Your task to perform on an android device: Search for seafood restaurants on Google Maps Image 0: 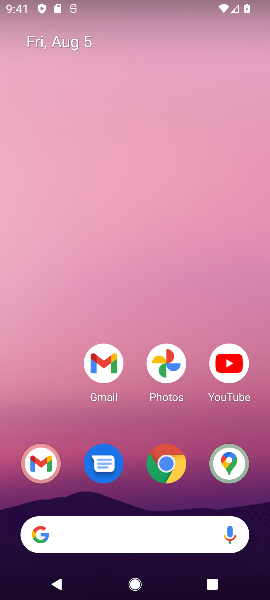
Step 0: drag from (175, 518) to (69, 10)
Your task to perform on an android device: Search for seafood restaurants on Google Maps Image 1: 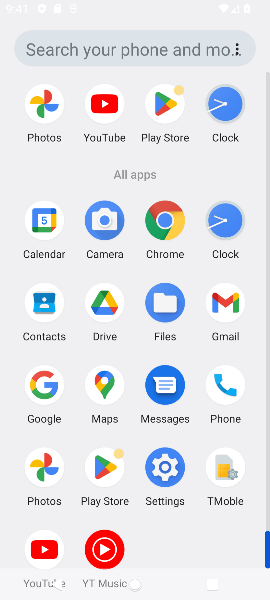
Step 1: drag from (138, 494) to (90, 69)
Your task to perform on an android device: Search for seafood restaurants on Google Maps Image 2: 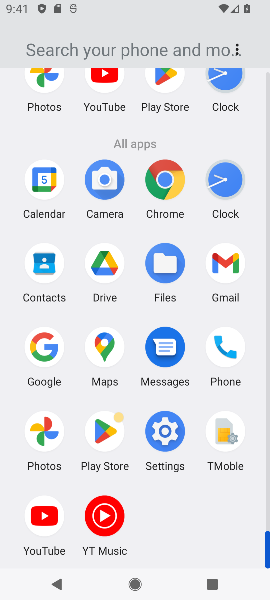
Step 2: drag from (120, 395) to (120, 355)
Your task to perform on an android device: Search for seafood restaurants on Google Maps Image 3: 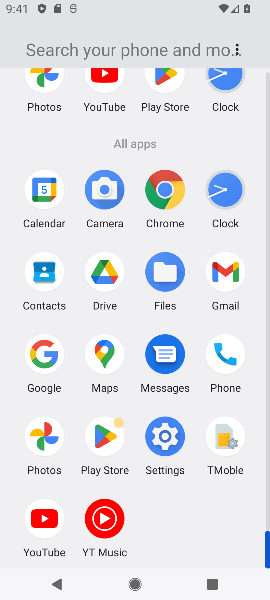
Step 3: click (102, 350)
Your task to perform on an android device: Search for seafood restaurants on Google Maps Image 4: 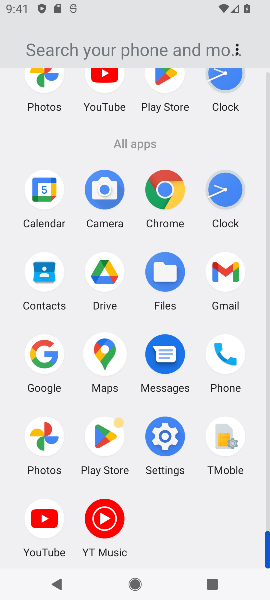
Step 4: click (102, 350)
Your task to perform on an android device: Search for seafood restaurants on Google Maps Image 5: 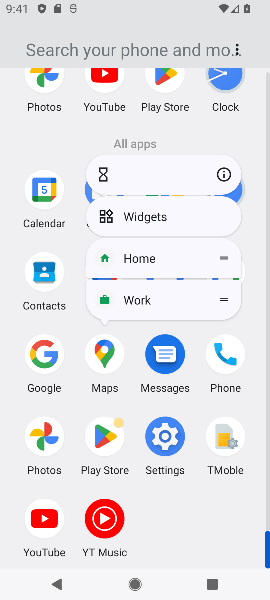
Step 5: click (102, 350)
Your task to perform on an android device: Search for seafood restaurants on Google Maps Image 6: 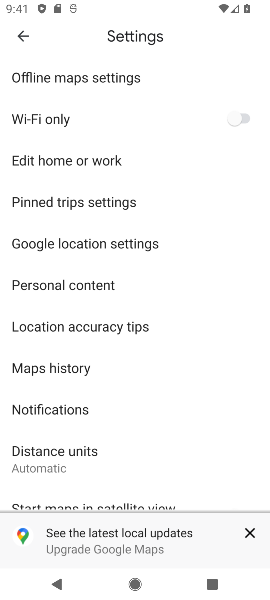
Step 6: click (102, 351)
Your task to perform on an android device: Search for seafood restaurants on Google Maps Image 7: 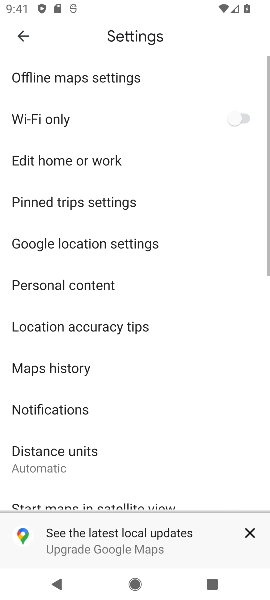
Step 7: click (23, 30)
Your task to perform on an android device: Search for seafood restaurants on Google Maps Image 8: 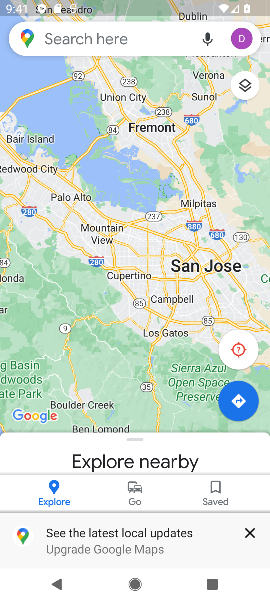
Step 8: click (80, 38)
Your task to perform on an android device: Search for seafood restaurants on Google Maps Image 9: 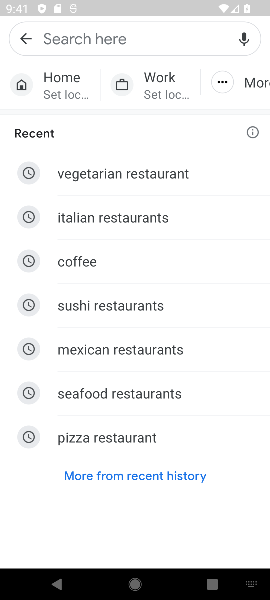
Step 9: click (107, 391)
Your task to perform on an android device: Search for seafood restaurants on Google Maps Image 10: 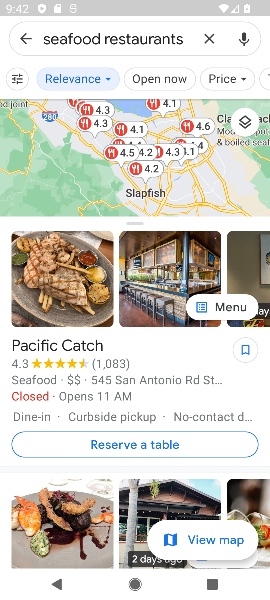
Step 10: task complete